Your task to perform on an android device: turn on sleep mode Image 0: 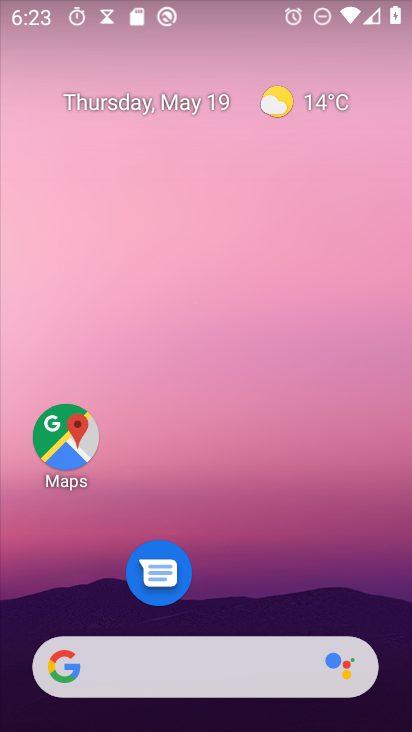
Step 0: drag from (227, 580) to (231, 141)
Your task to perform on an android device: turn on sleep mode Image 1: 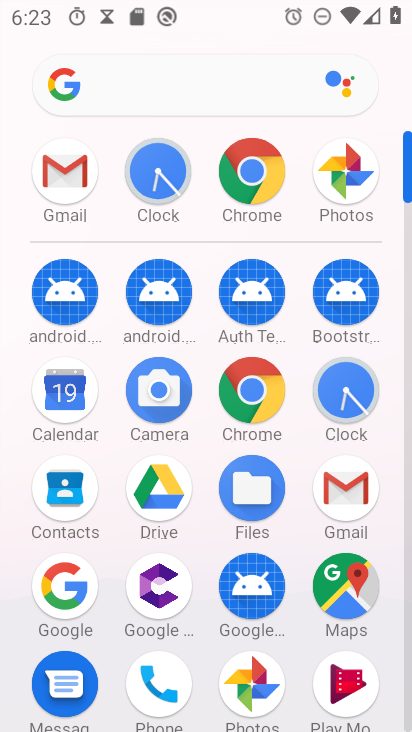
Step 1: task complete